Your task to perform on an android device: Go to battery settings Image 0: 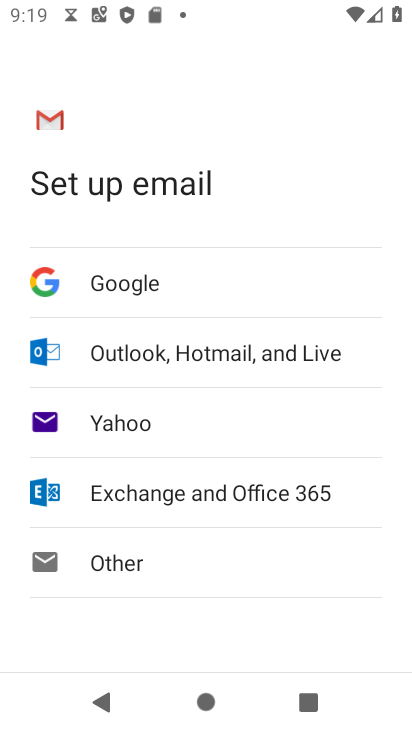
Step 0: press home button
Your task to perform on an android device: Go to battery settings Image 1: 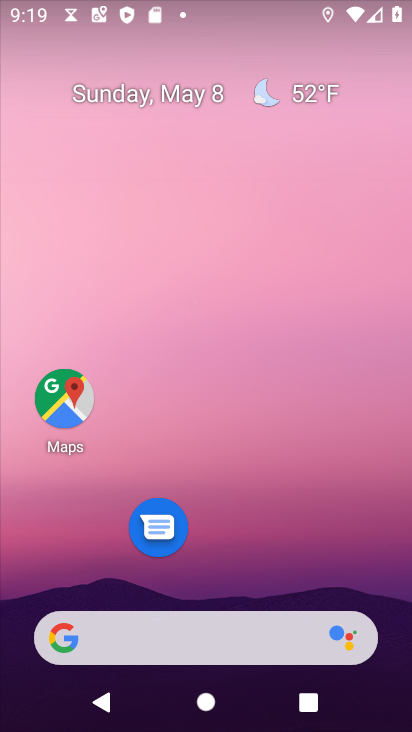
Step 1: drag from (235, 524) to (200, 12)
Your task to perform on an android device: Go to battery settings Image 2: 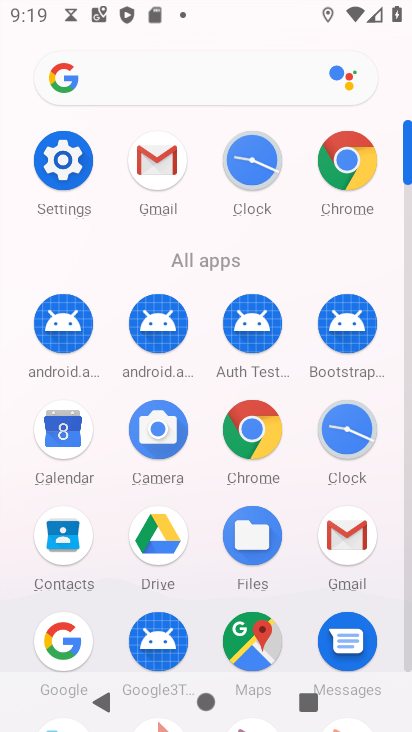
Step 2: click (64, 159)
Your task to perform on an android device: Go to battery settings Image 3: 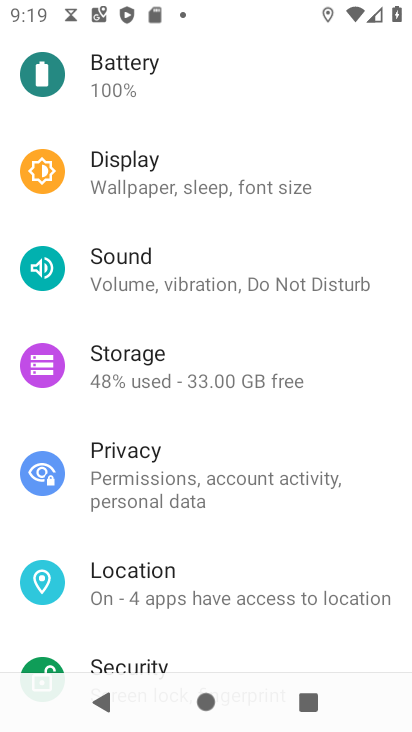
Step 3: drag from (207, 182) to (233, 310)
Your task to perform on an android device: Go to battery settings Image 4: 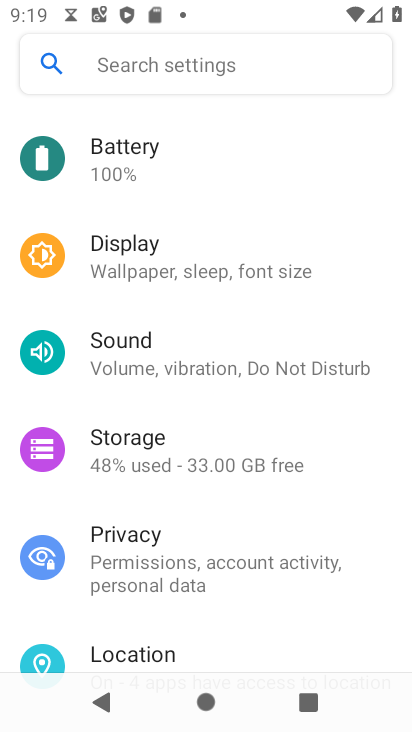
Step 4: click (138, 152)
Your task to perform on an android device: Go to battery settings Image 5: 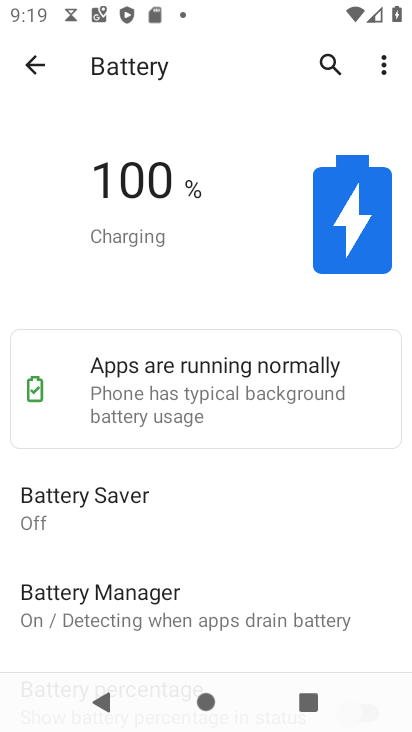
Step 5: task complete